Your task to perform on an android device: Open location settings Image 0: 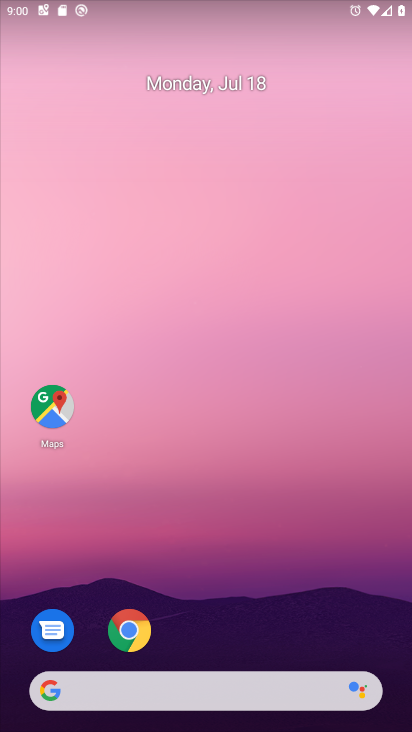
Step 0: drag from (181, 645) to (202, 148)
Your task to perform on an android device: Open location settings Image 1: 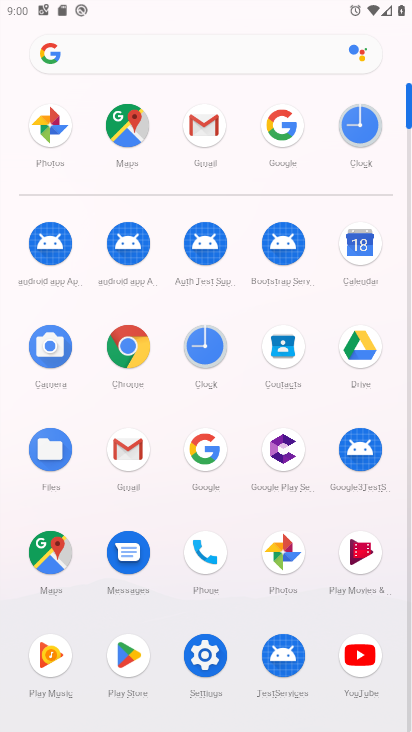
Step 1: click (208, 645)
Your task to perform on an android device: Open location settings Image 2: 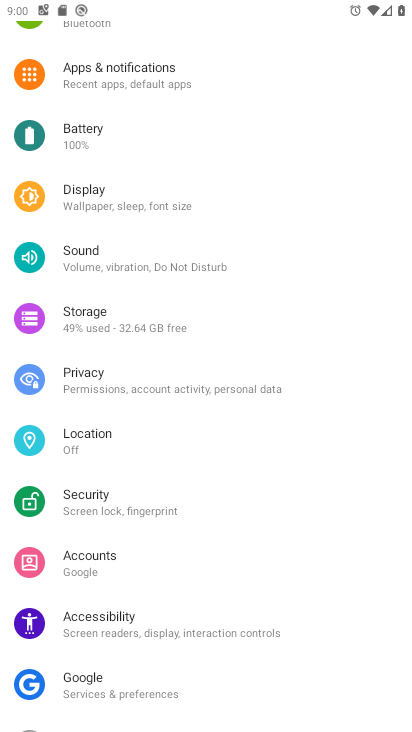
Step 2: click (98, 451)
Your task to perform on an android device: Open location settings Image 3: 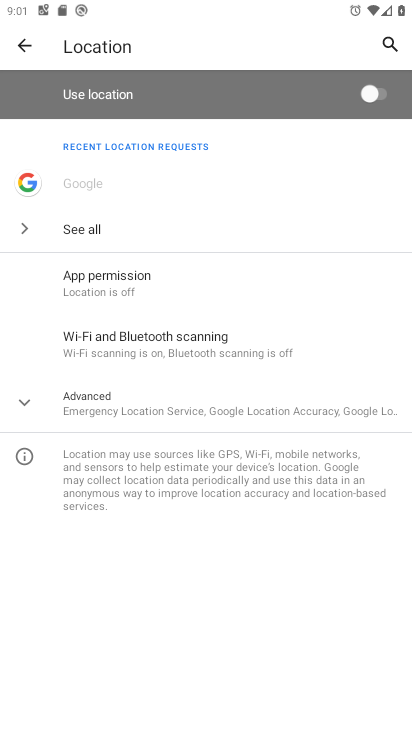
Step 3: task complete